Your task to perform on an android device: set the timer Image 0: 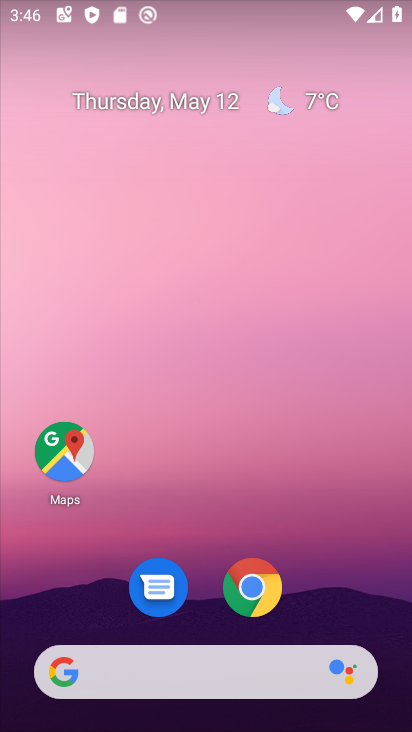
Step 0: drag from (316, 418) to (330, 173)
Your task to perform on an android device: set the timer Image 1: 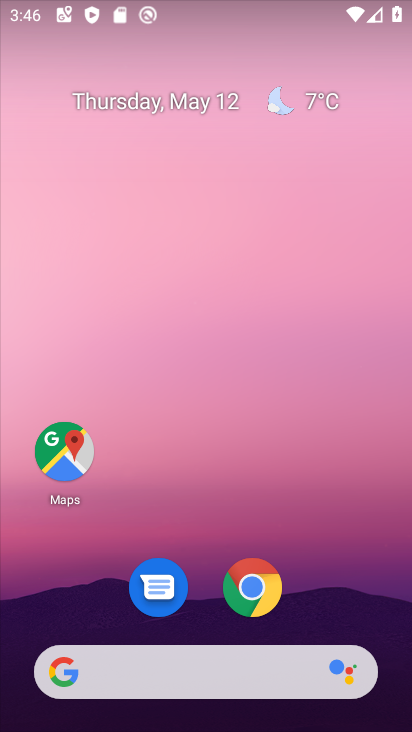
Step 1: drag from (346, 540) to (336, 128)
Your task to perform on an android device: set the timer Image 2: 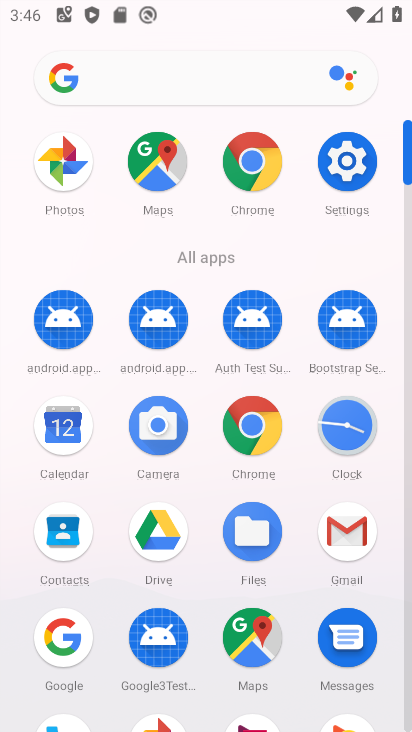
Step 2: click (341, 432)
Your task to perform on an android device: set the timer Image 3: 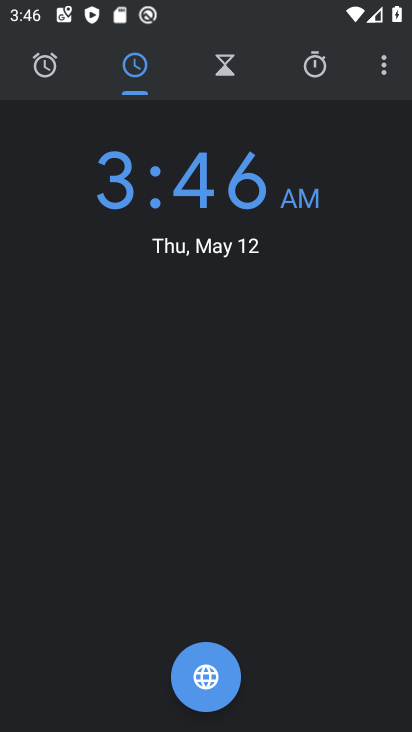
Step 3: click (235, 84)
Your task to perform on an android device: set the timer Image 4: 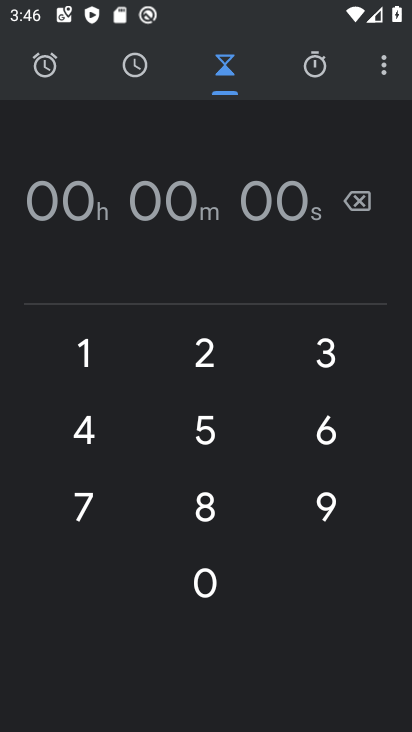
Step 4: click (207, 377)
Your task to perform on an android device: set the timer Image 5: 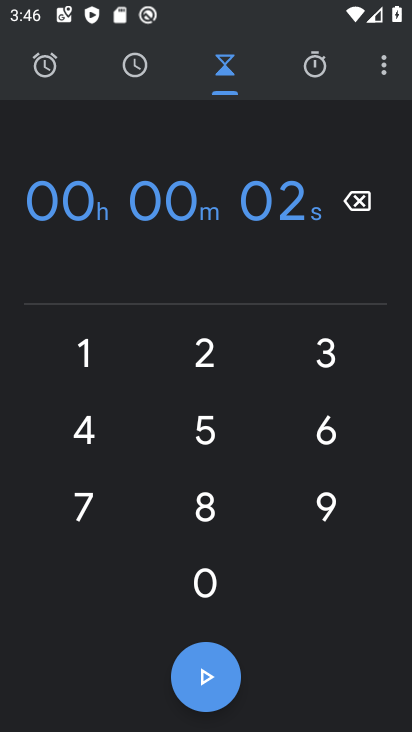
Step 5: click (307, 365)
Your task to perform on an android device: set the timer Image 6: 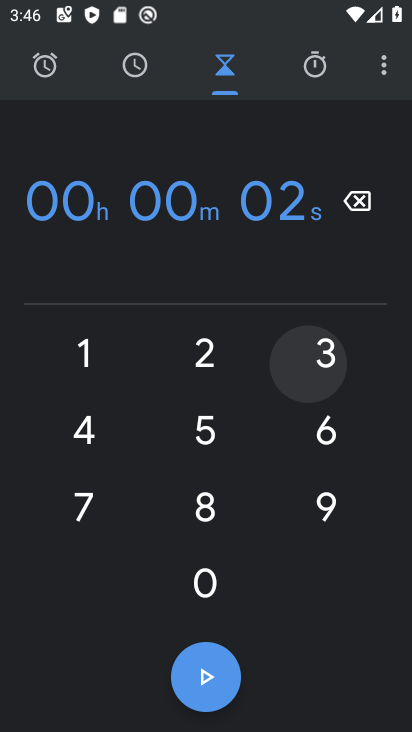
Step 6: click (307, 365)
Your task to perform on an android device: set the timer Image 7: 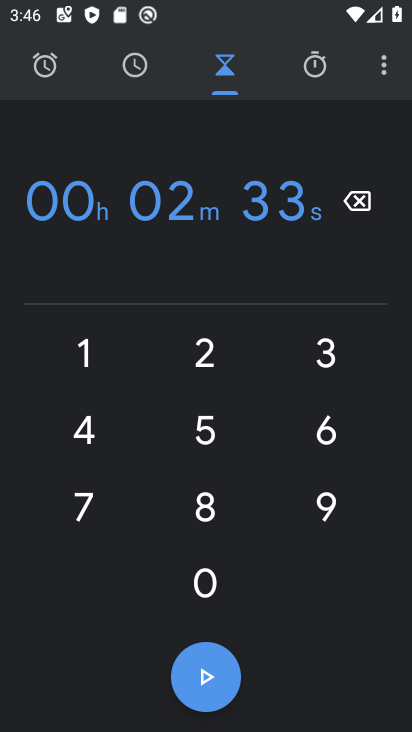
Step 7: click (230, 694)
Your task to perform on an android device: set the timer Image 8: 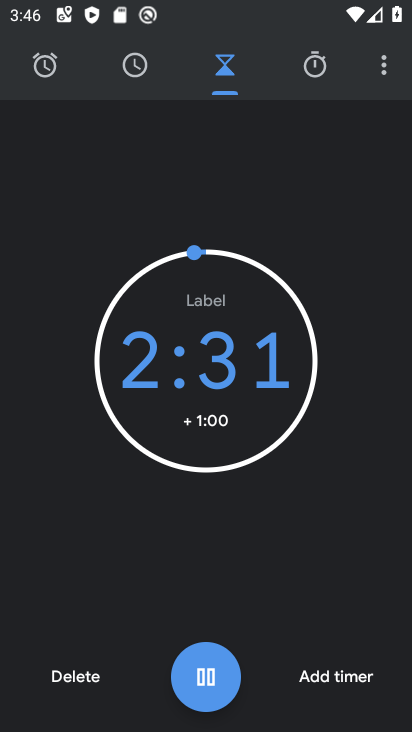
Step 8: task complete